Your task to perform on an android device: Check the weather Image 0: 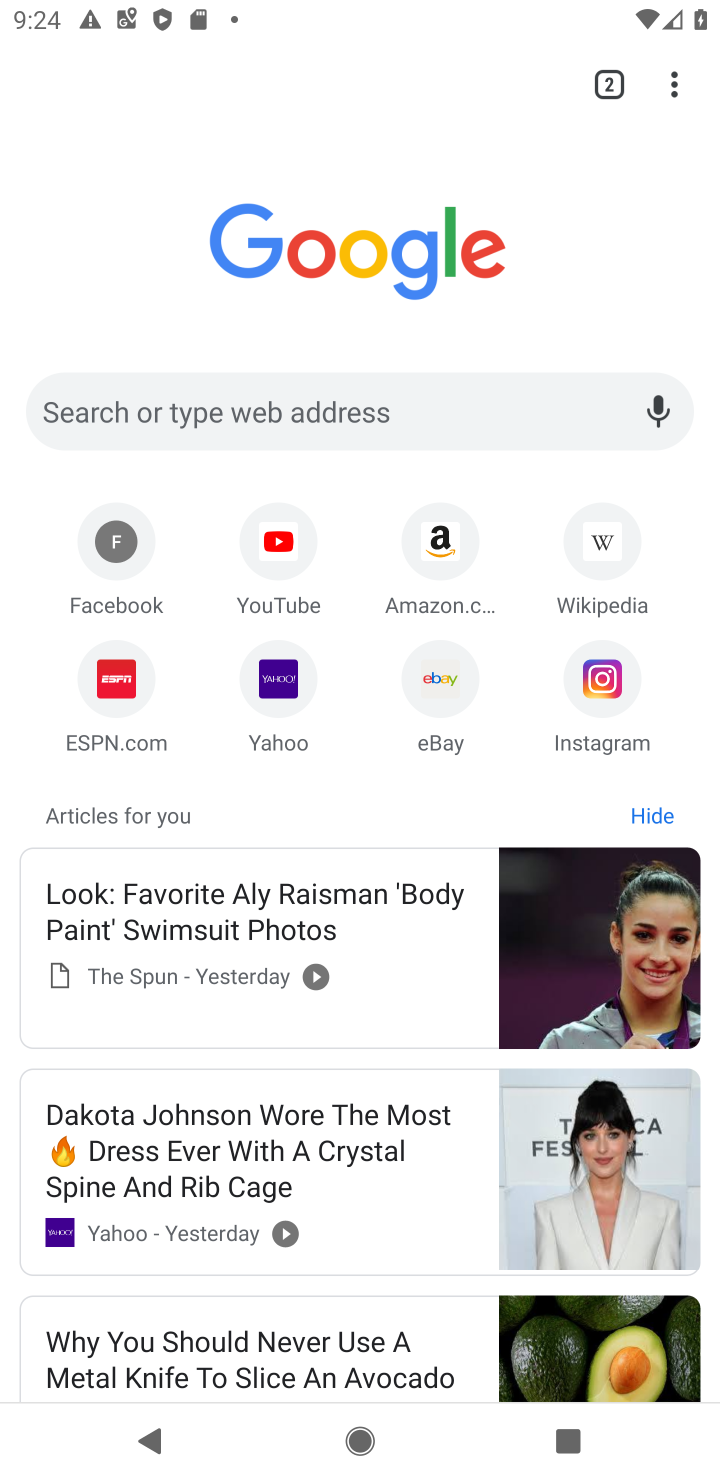
Step 0: press home button
Your task to perform on an android device: Check the weather Image 1: 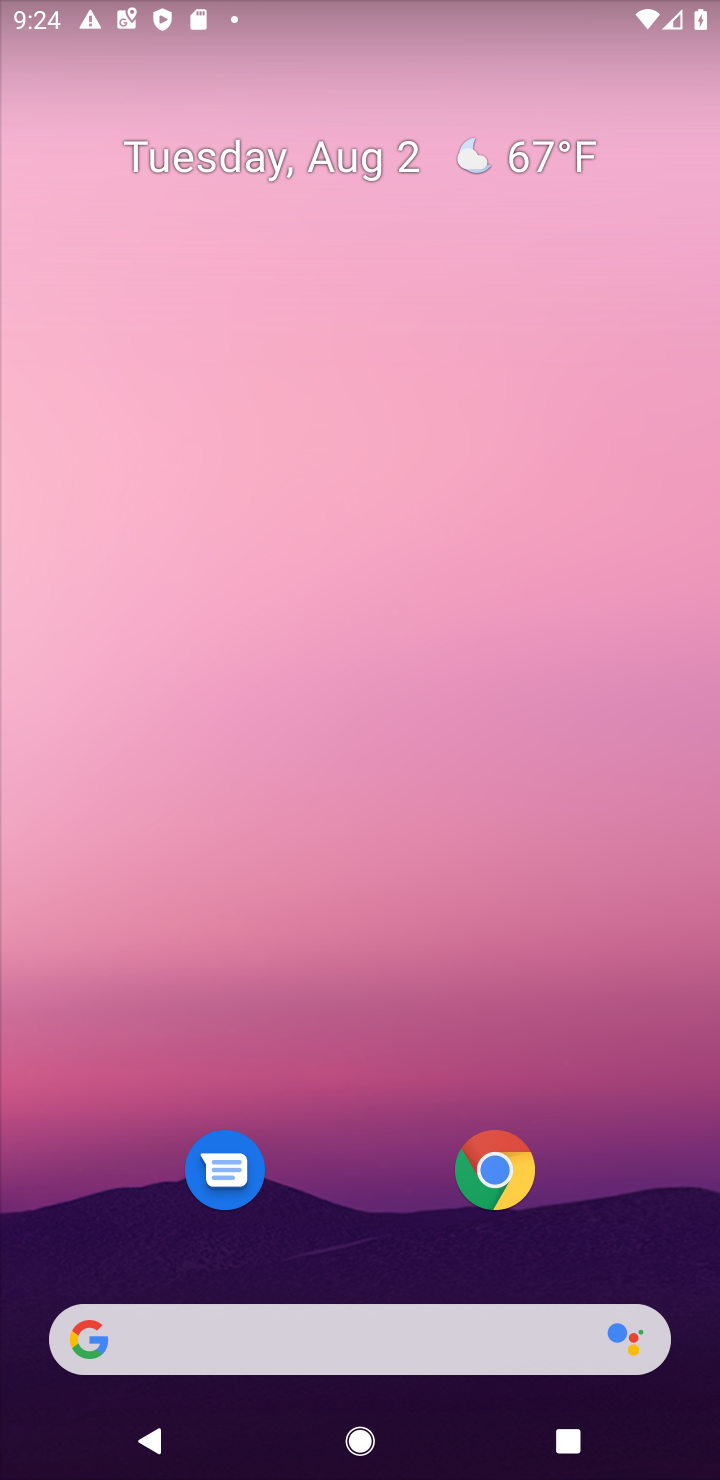
Step 1: click (156, 1327)
Your task to perform on an android device: Check the weather Image 2: 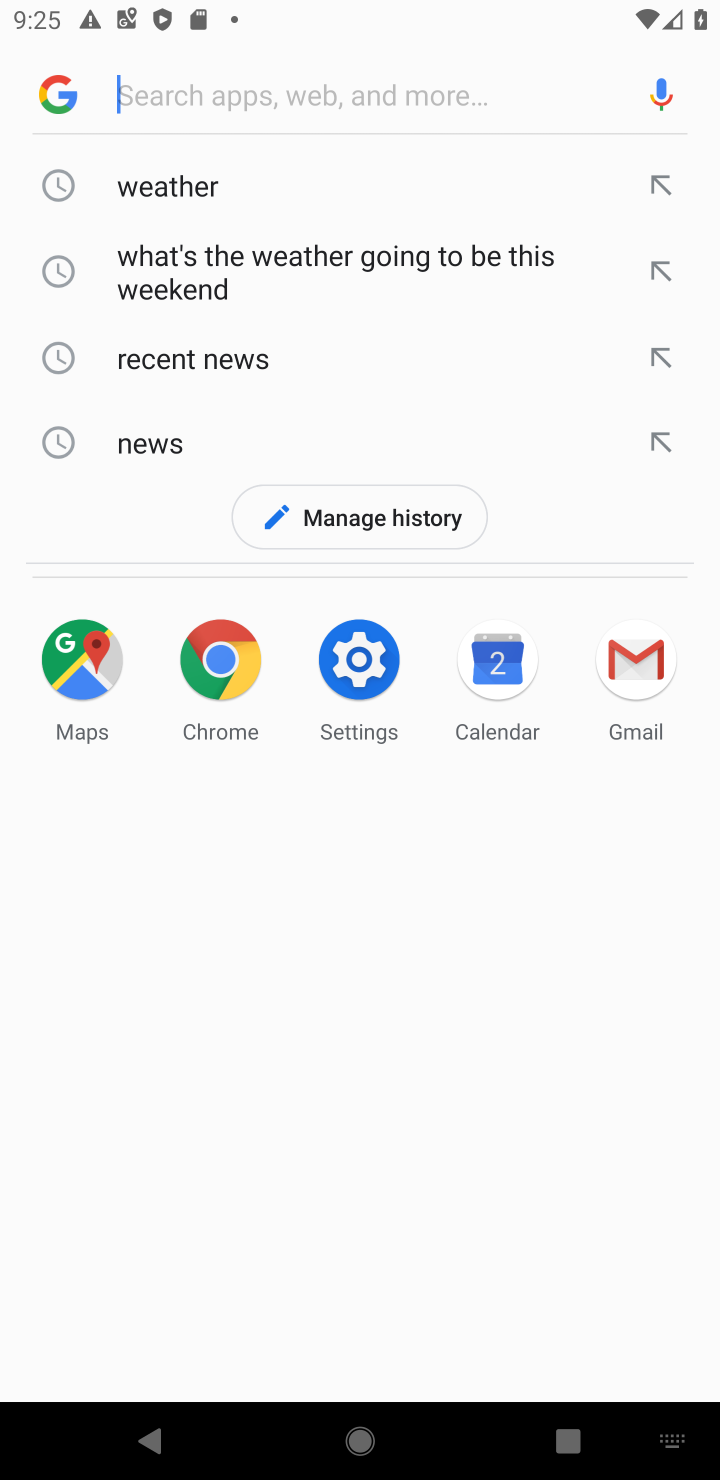
Step 2: click (159, 178)
Your task to perform on an android device: Check the weather Image 3: 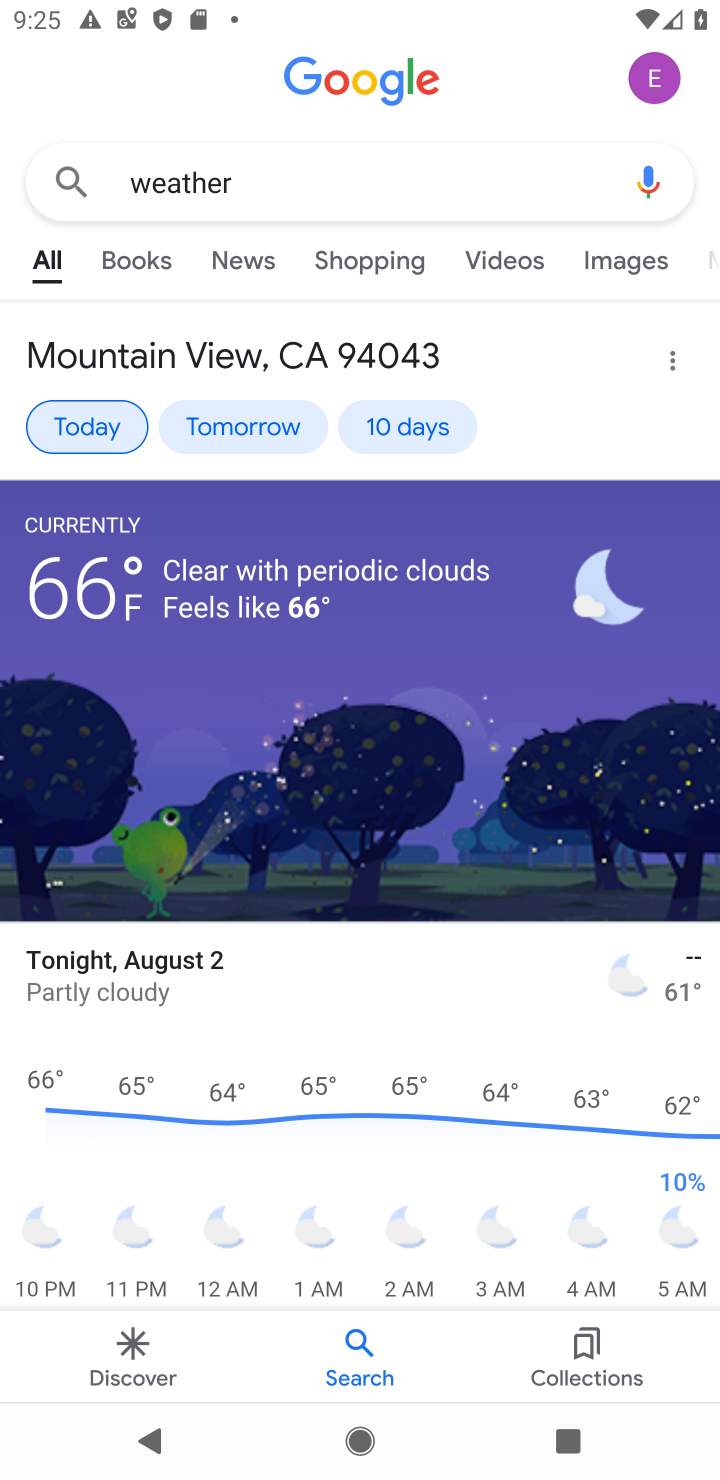
Step 3: task complete